Your task to perform on an android device: set the stopwatch Image 0: 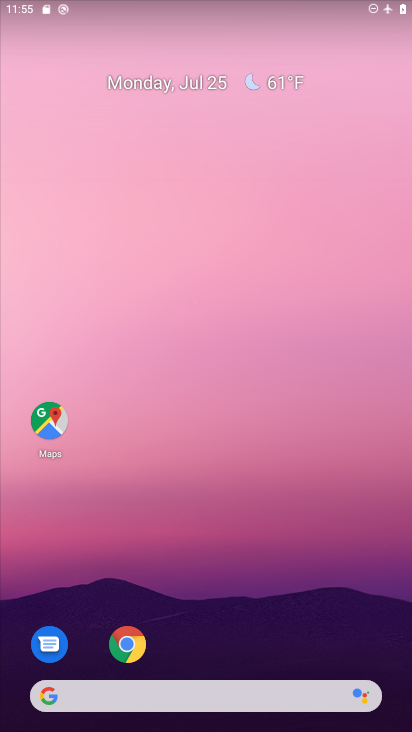
Step 0: drag from (267, 632) to (210, 175)
Your task to perform on an android device: set the stopwatch Image 1: 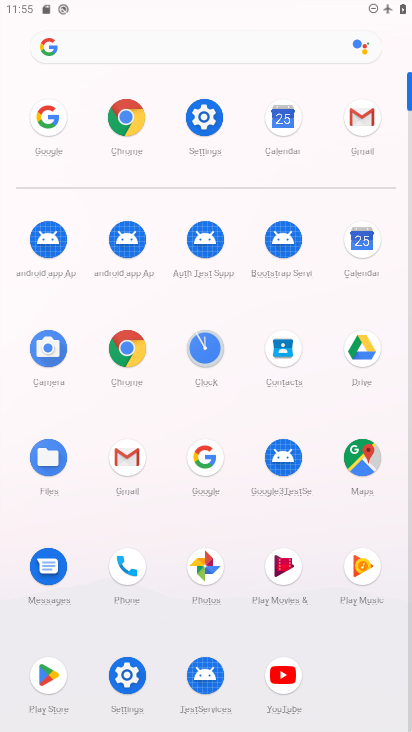
Step 1: click (201, 348)
Your task to perform on an android device: set the stopwatch Image 2: 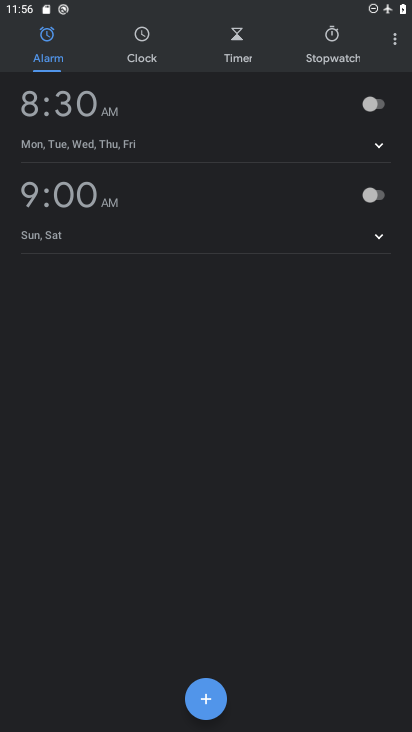
Step 2: click (337, 45)
Your task to perform on an android device: set the stopwatch Image 3: 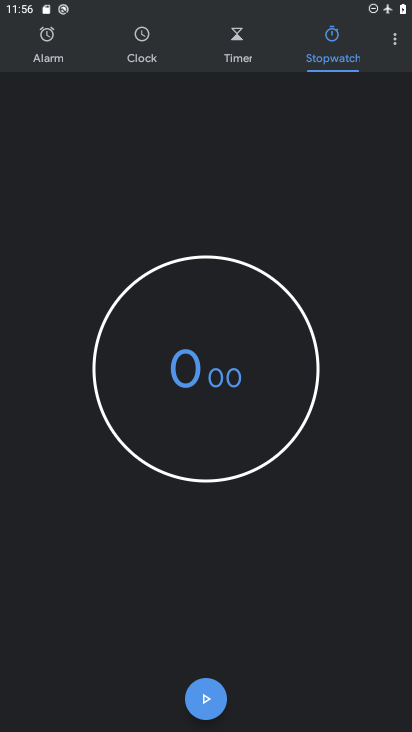
Step 3: task complete